Your task to perform on an android device: toggle show notifications on the lock screen Image 0: 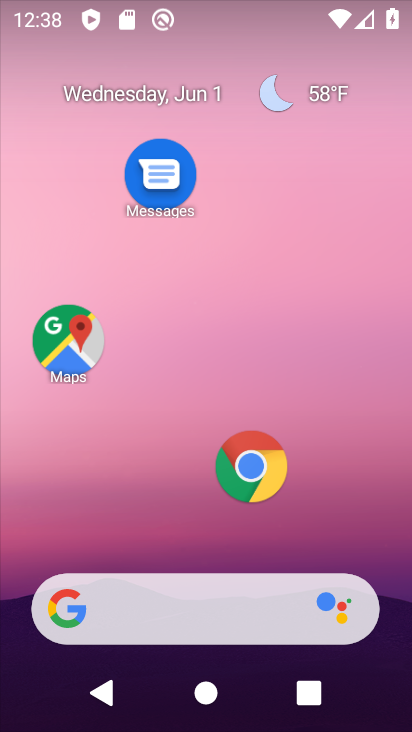
Step 0: drag from (133, 528) to (191, 138)
Your task to perform on an android device: toggle show notifications on the lock screen Image 1: 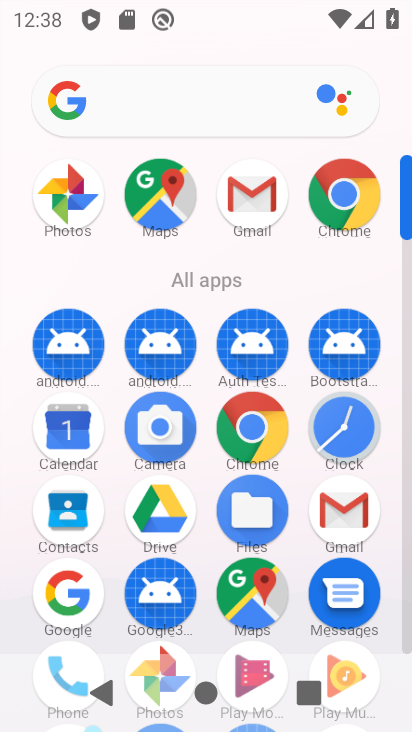
Step 1: drag from (110, 569) to (124, 243)
Your task to perform on an android device: toggle show notifications on the lock screen Image 2: 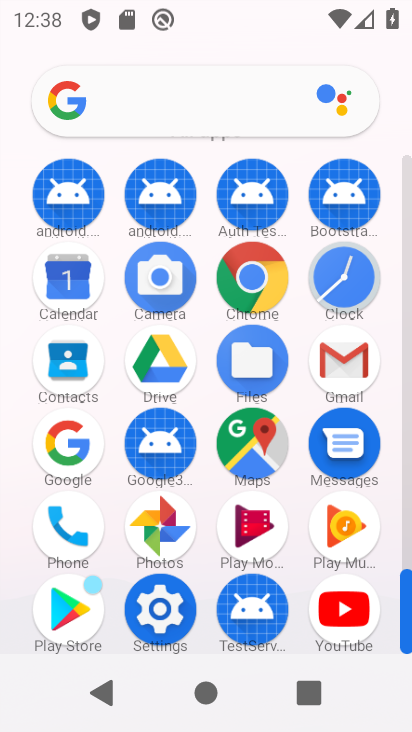
Step 2: click (163, 610)
Your task to perform on an android device: toggle show notifications on the lock screen Image 3: 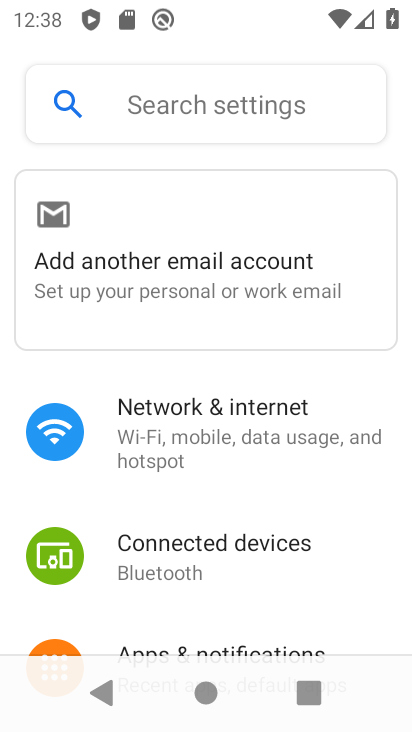
Step 3: click (269, 648)
Your task to perform on an android device: toggle show notifications on the lock screen Image 4: 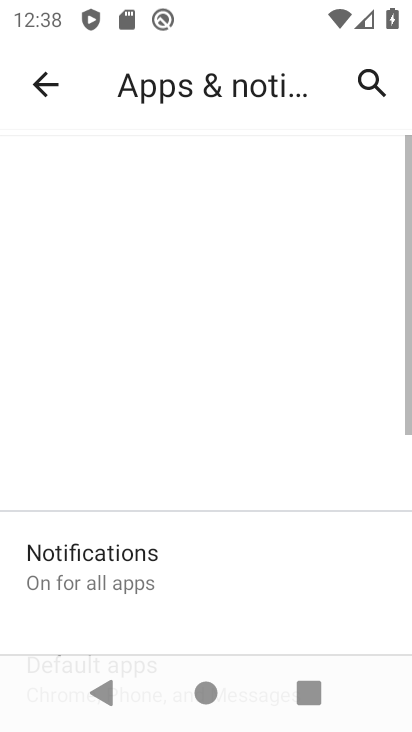
Step 4: click (160, 566)
Your task to perform on an android device: toggle show notifications on the lock screen Image 5: 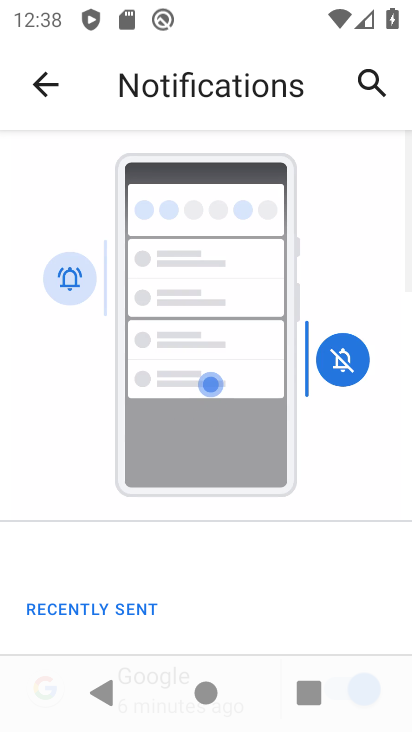
Step 5: drag from (154, 542) to (191, 108)
Your task to perform on an android device: toggle show notifications on the lock screen Image 6: 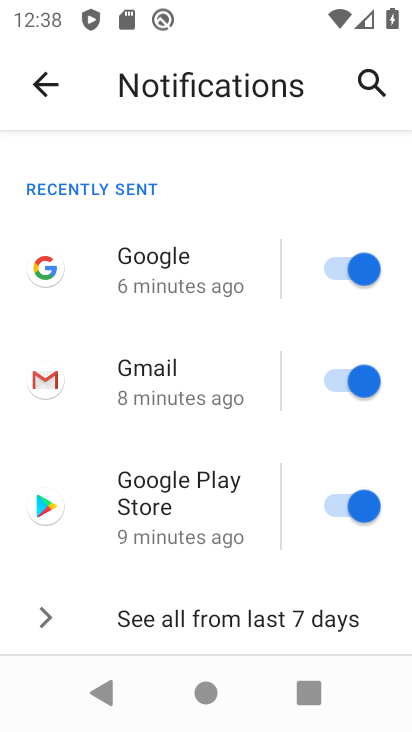
Step 6: drag from (214, 575) to (266, 139)
Your task to perform on an android device: toggle show notifications on the lock screen Image 7: 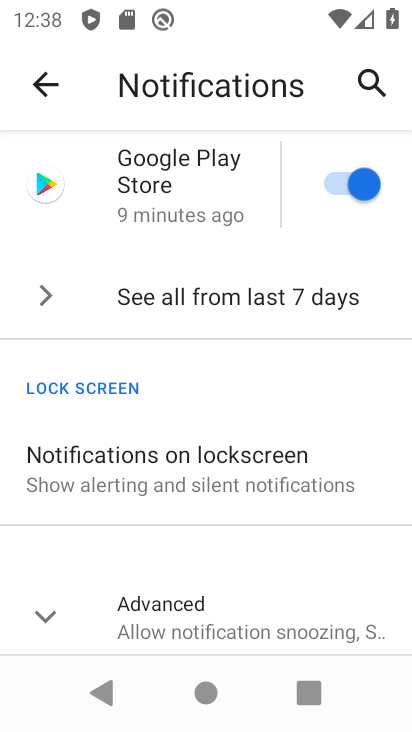
Step 7: click (179, 487)
Your task to perform on an android device: toggle show notifications on the lock screen Image 8: 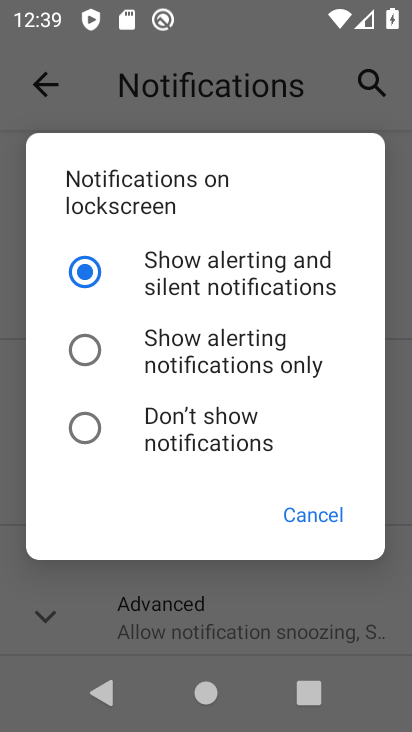
Step 8: task complete